Your task to perform on an android device: toggle data saver in the chrome app Image 0: 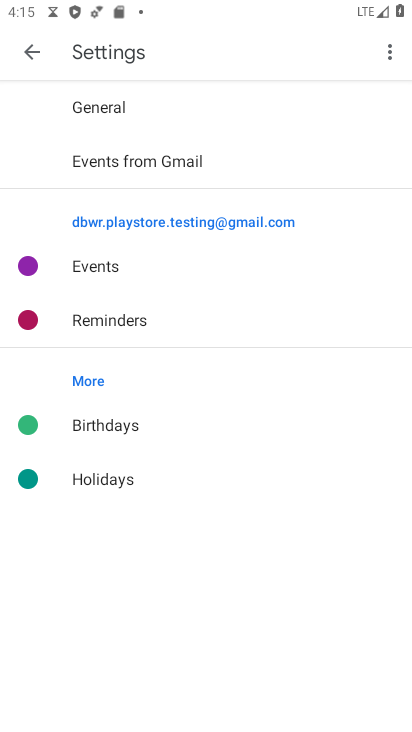
Step 0: press back button
Your task to perform on an android device: toggle data saver in the chrome app Image 1: 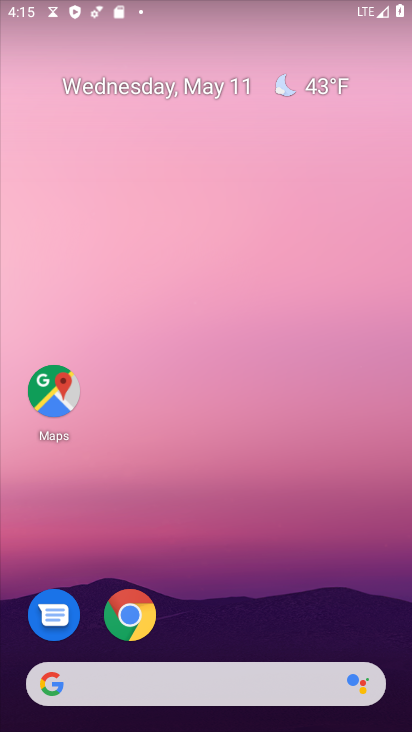
Step 1: drag from (299, 561) to (218, 3)
Your task to perform on an android device: toggle data saver in the chrome app Image 2: 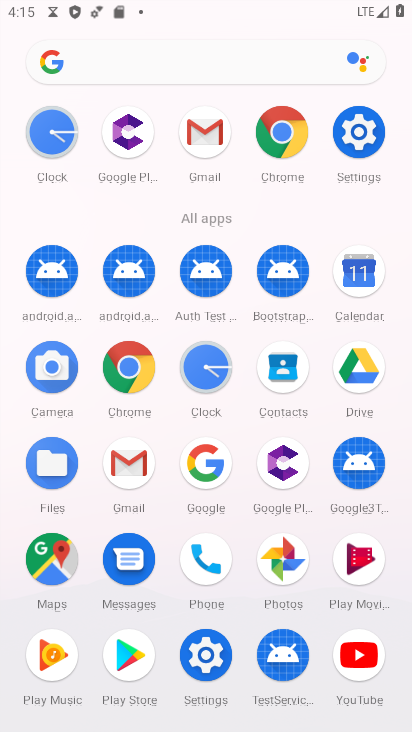
Step 2: drag from (3, 634) to (4, 312)
Your task to perform on an android device: toggle data saver in the chrome app Image 3: 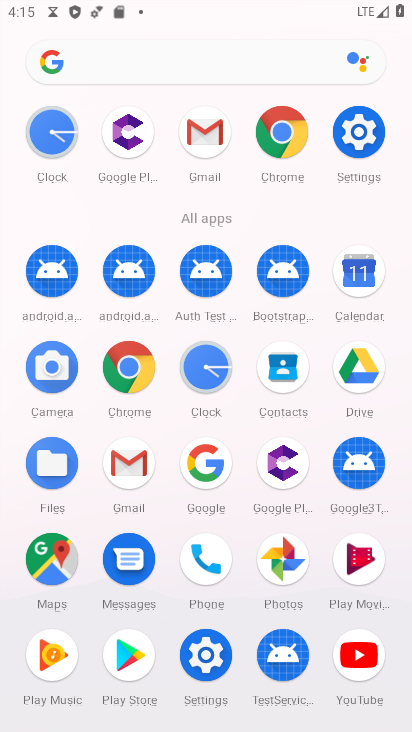
Step 3: click (123, 362)
Your task to perform on an android device: toggle data saver in the chrome app Image 4: 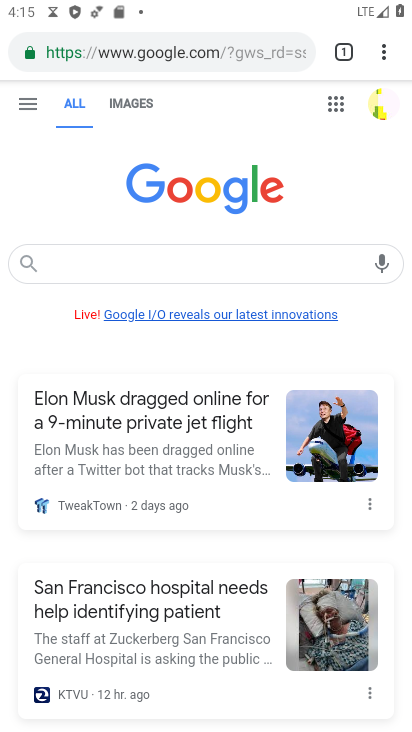
Step 4: drag from (381, 55) to (220, 572)
Your task to perform on an android device: toggle data saver in the chrome app Image 5: 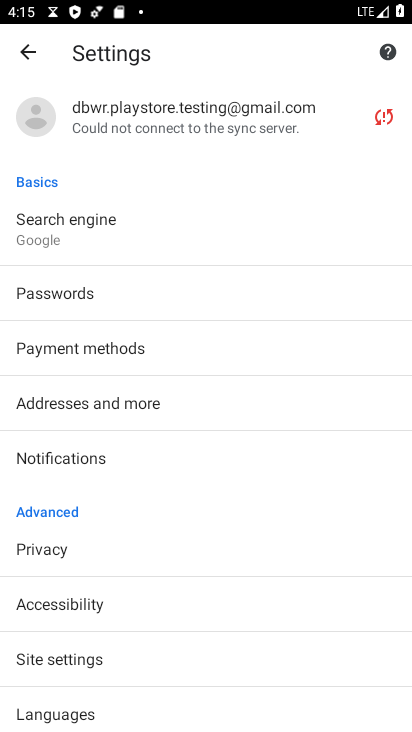
Step 5: drag from (179, 552) to (189, 272)
Your task to perform on an android device: toggle data saver in the chrome app Image 6: 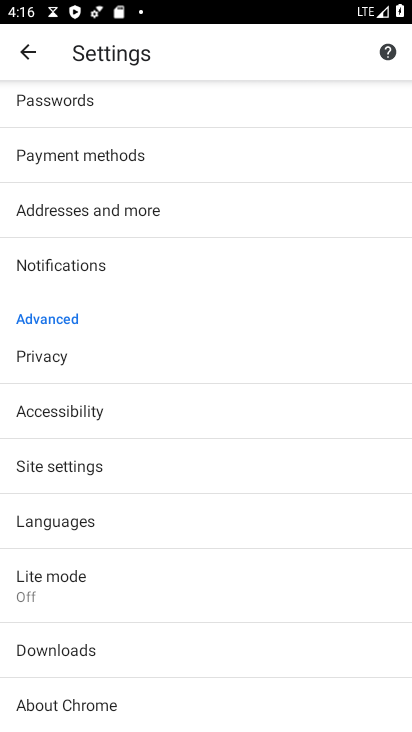
Step 6: drag from (165, 516) to (183, 206)
Your task to perform on an android device: toggle data saver in the chrome app Image 7: 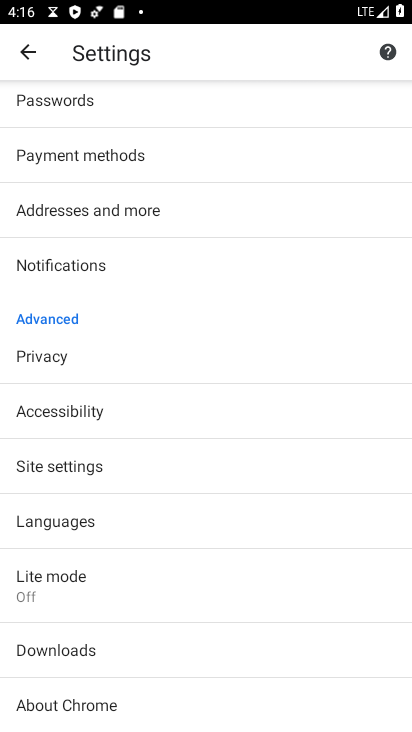
Step 7: drag from (249, 547) to (239, 140)
Your task to perform on an android device: toggle data saver in the chrome app Image 8: 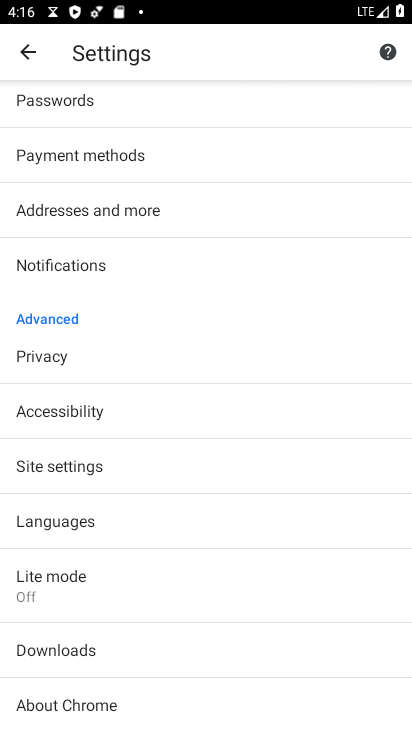
Step 8: click (119, 579)
Your task to perform on an android device: toggle data saver in the chrome app Image 9: 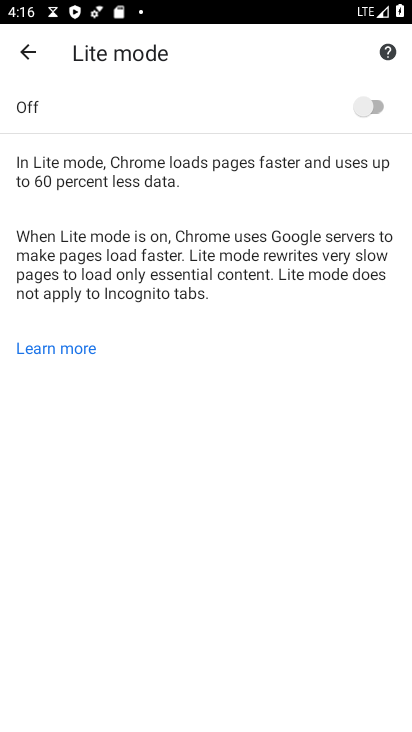
Step 9: click (375, 100)
Your task to perform on an android device: toggle data saver in the chrome app Image 10: 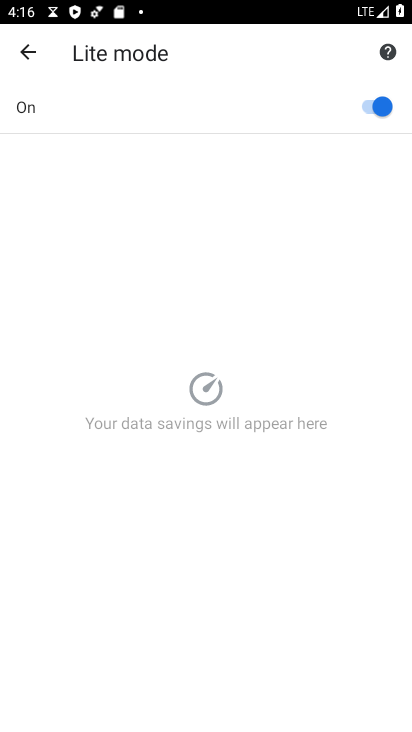
Step 10: task complete